Your task to perform on an android device: Open the calendar and show me this week's events? Image 0: 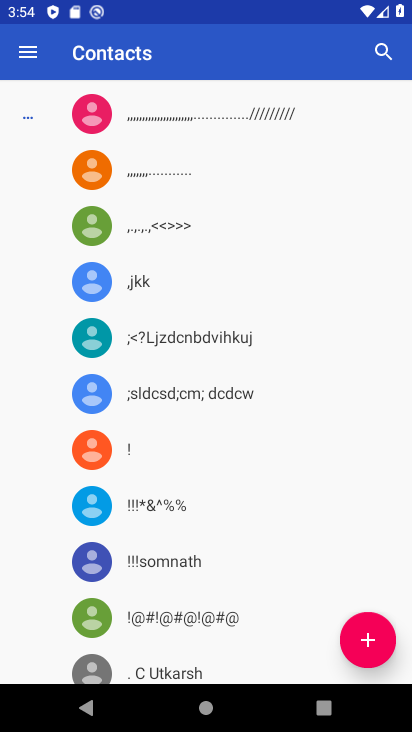
Step 0: press home button
Your task to perform on an android device: Open the calendar and show me this week's events? Image 1: 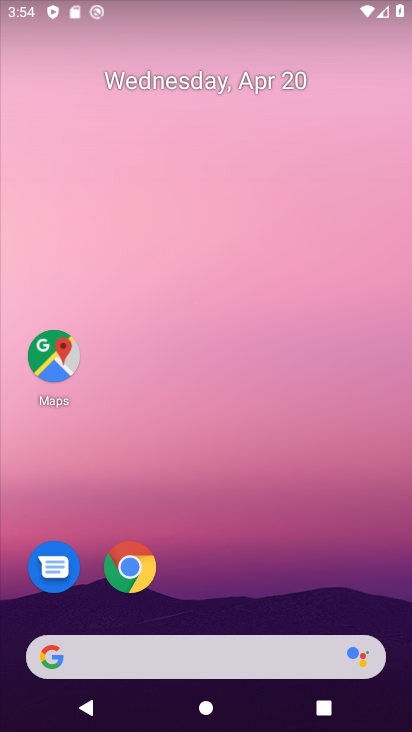
Step 1: drag from (368, 513) to (249, 149)
Your task to perform on an android device: Open the calendar and show me this week's events? Image 2: 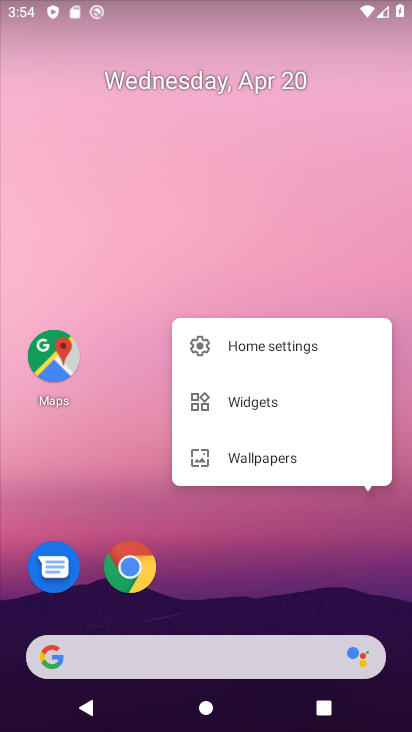
Step 2: click (284, 552)
Your task to perform on an android device: Open the calendar and show me this week's events? Image 3: 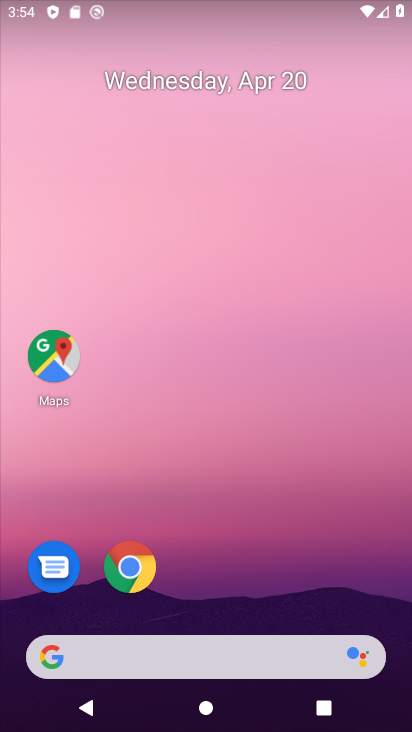
Step 3: drag from (306, 590) to (292, 252)
Your task to perform on an android device: Open the calendar and show me this week's events? Image 4: 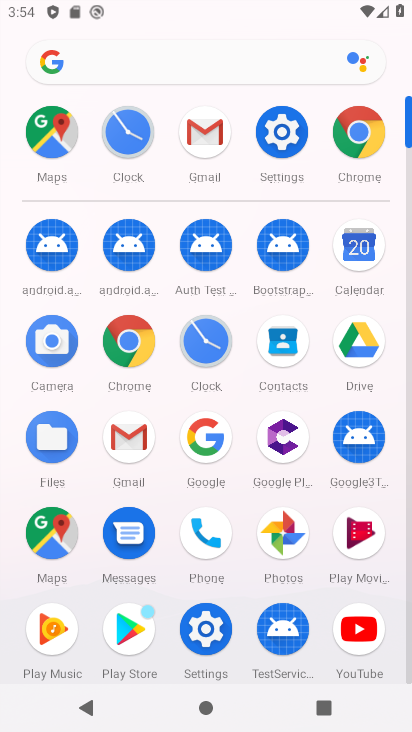
Step 4: click (344, 265)
Your task to perform on an android device: Open the calendar and show me this week's events? Image 5: 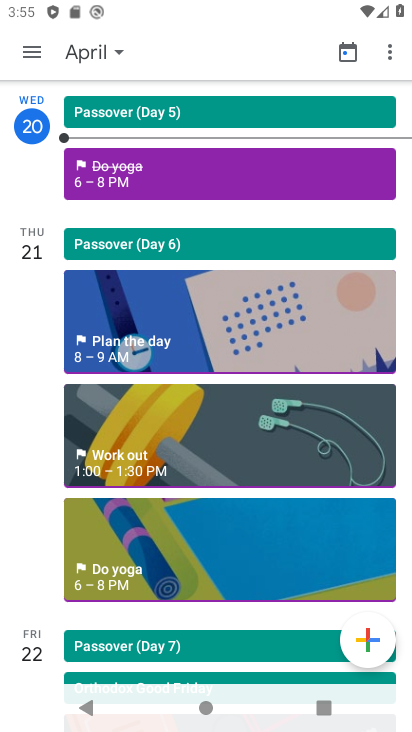
Step 5: click (33, 55)
Your task to perform on an android device: Open the calendar and show me this week's events? Image 6: 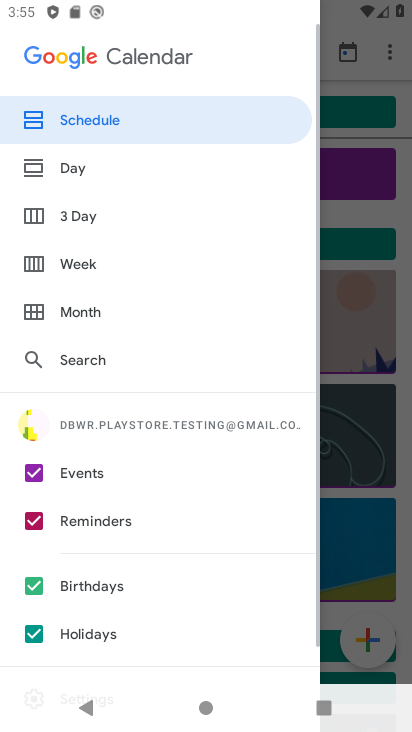
Step 6: click (119, 279)
Your task to perform on an android device: Open the calendar and show me this week's events? Image 7: 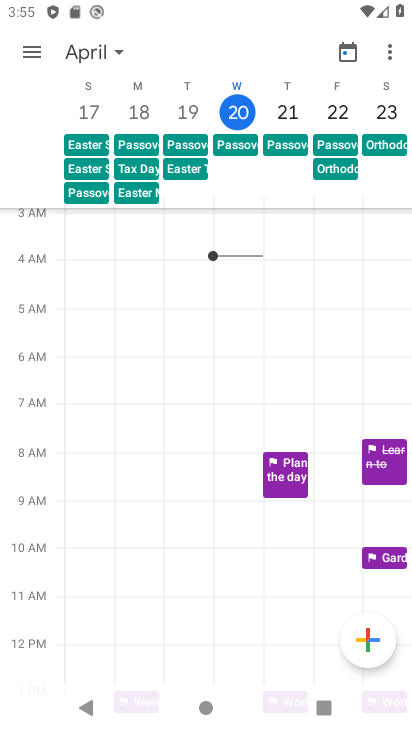
Step 7: click (113, 64)
Your task to perform on an android device: Open the calendar and show me this week's events? Image 8: 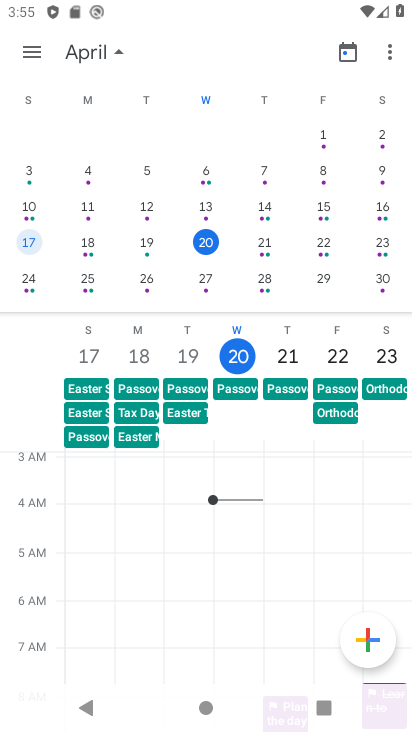
Step 8: click (203, 235)
Your task to perform on an android device: Open the calendar and show me this week's events? Image 9: 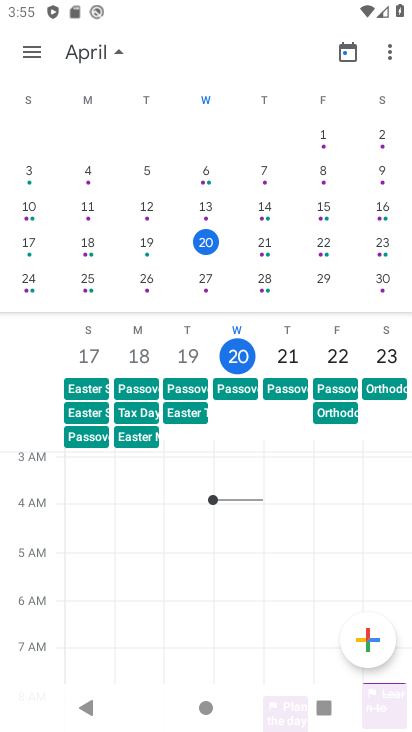
Step 9: task complete